Your task to perform on an android device: Go to Amazon Image 0: 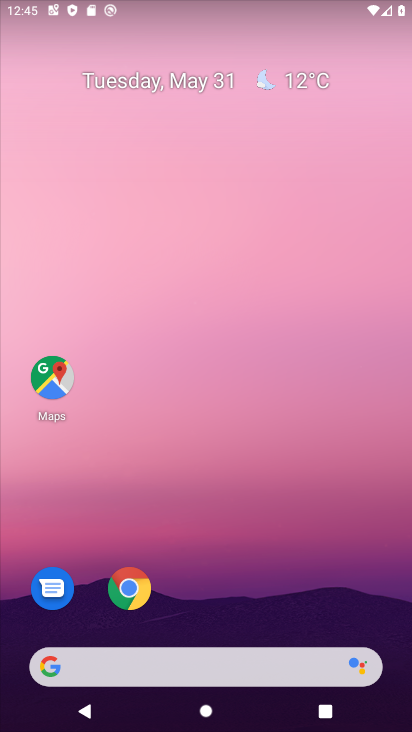
Step 0: click (127, 595)
Your task to perform on an android device: Go to Amazon Image 1: 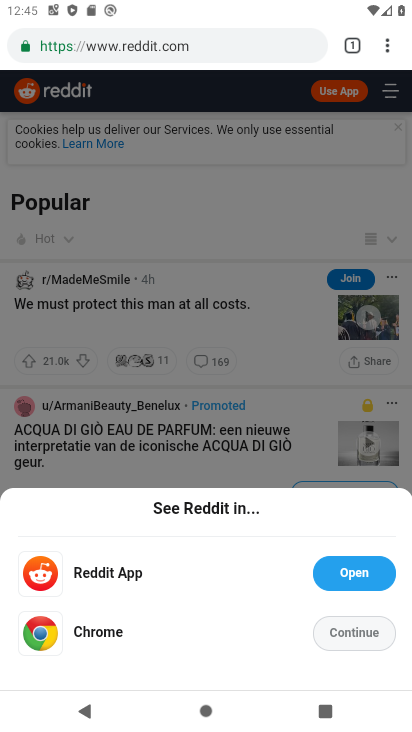
Step 1: press back button
Your task to perform on an android device: Go to Amazon Image 2: 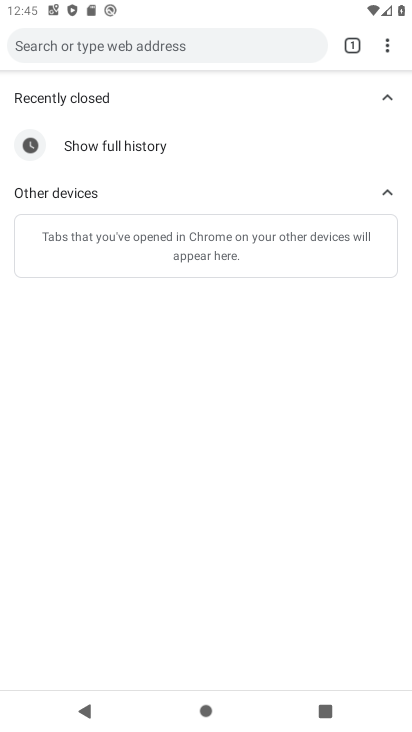
Step 2: press back button
Your task to perform on an android device: Go to Amazon Image 3: 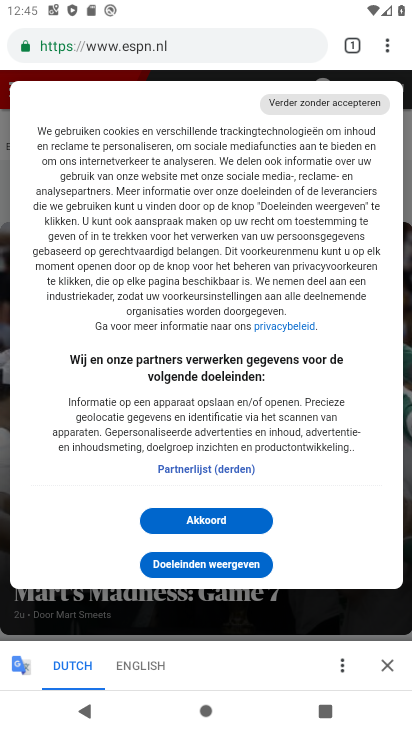
Step 3: press back button
Your task to perform on an android device: Go to Amazon Image 4: 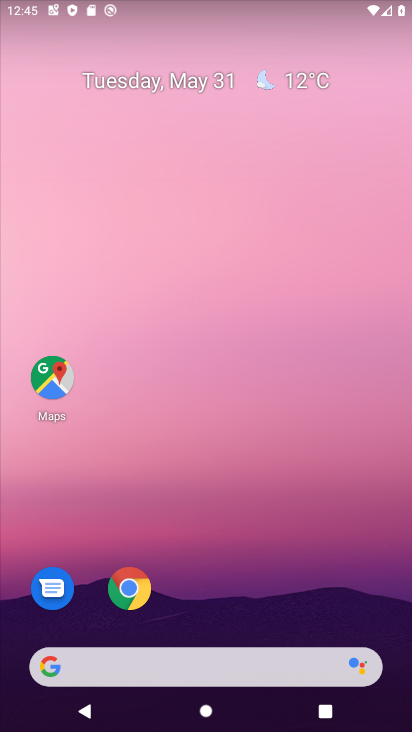
Step 4: click (125, 599)
Your task to perform on an android device: Go to Amazon Image 5: 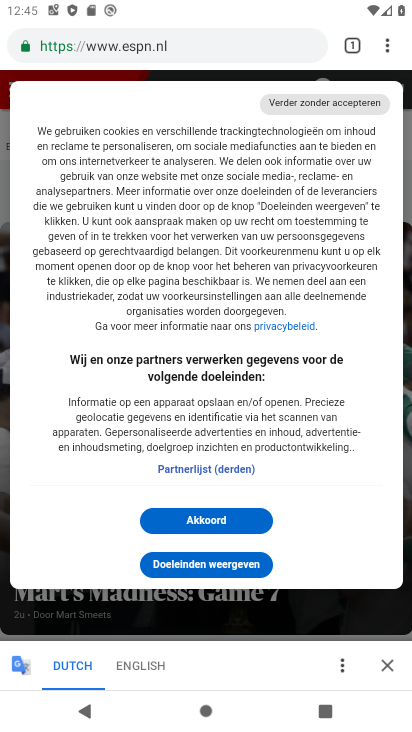
Step 5: click (349, 49)
Your task to perform on an android device: Go to Amazon Image 6: 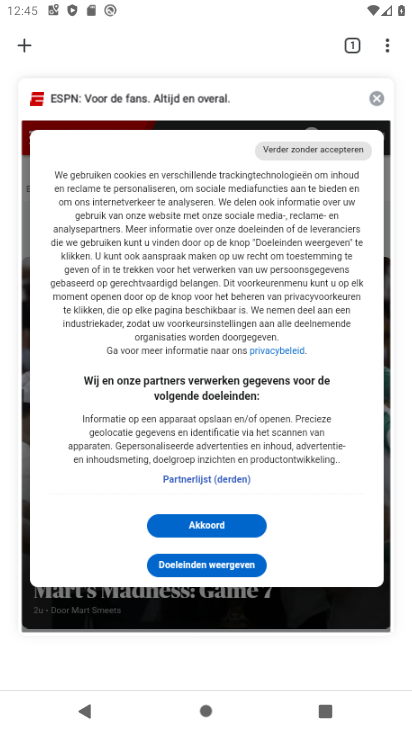
Step 6: click (26, 45)
Your task to perform on an android device: Go to Amazon Image 7: 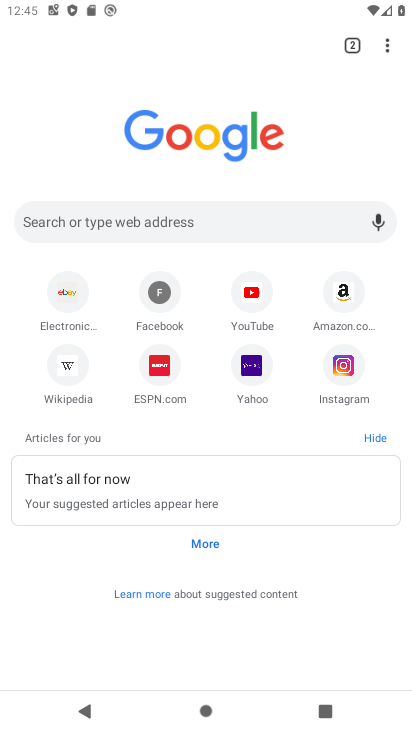
Step 7: click (342, 294)
Your task to perform on an android device: Go to Amazon Image 8: 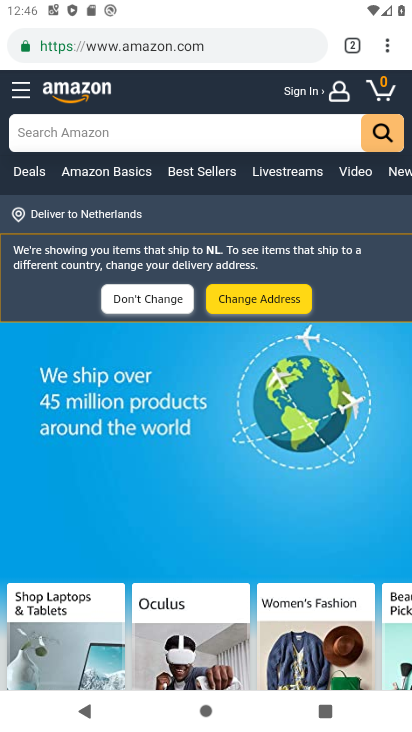
Step 8: task complete